Your task to perform on an android device: open sync settings in chrome Image 0: 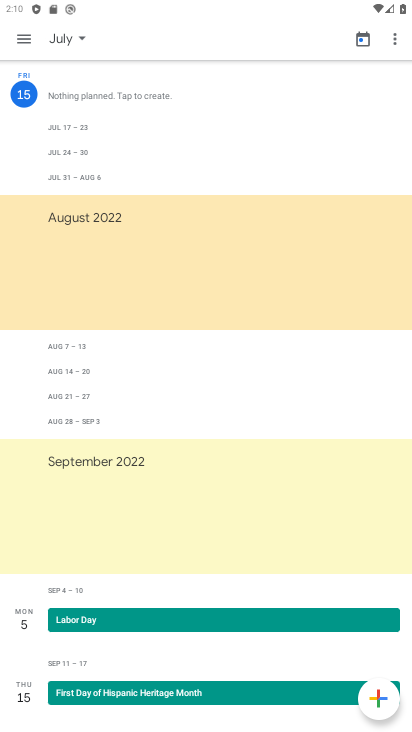
Step 0: press back button
Your task to perform on an android device: open sync settings in chrome Image 1: 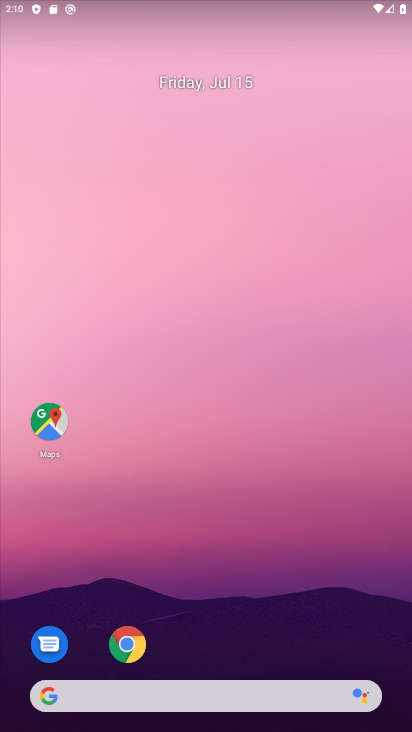
Step 1: click (134, 636)
Your task to perform on an android device: open sync settings in chrome Image 2: 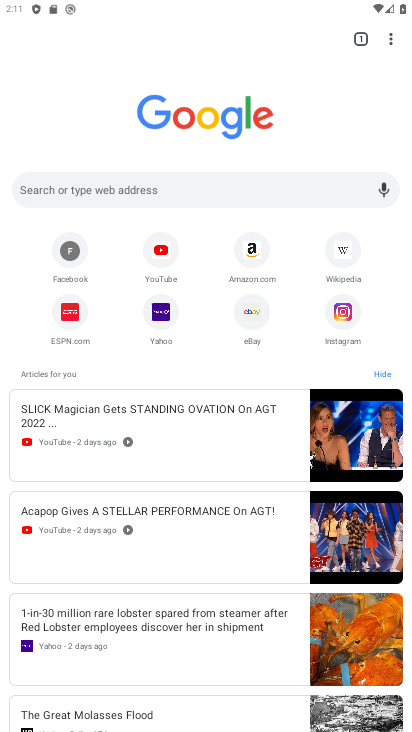
Step 2: drag from (392, 33) to (252, 330)
Your task to perform on an android device: open sync settings in chrome Image 3: 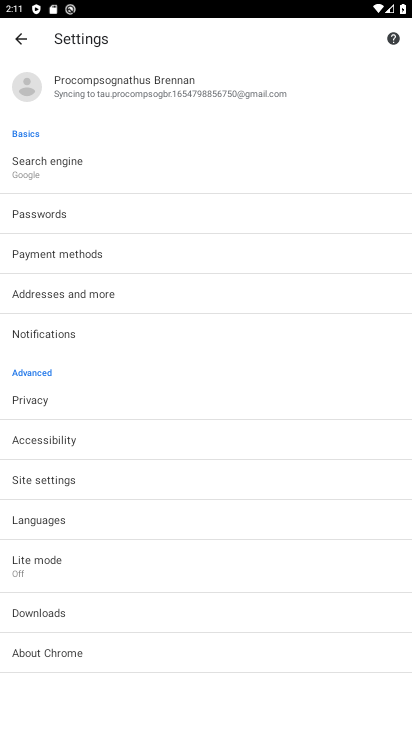
Step 3: click (122, 89)
Your task to perform on an android device: open sync settings in chrome Image 4: 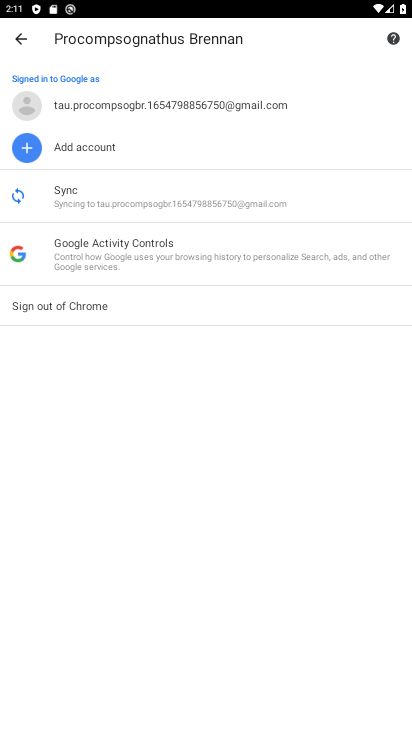
Step 4: task complete